Your task to perform on an android device: add a contact in the contacts app Image 0: 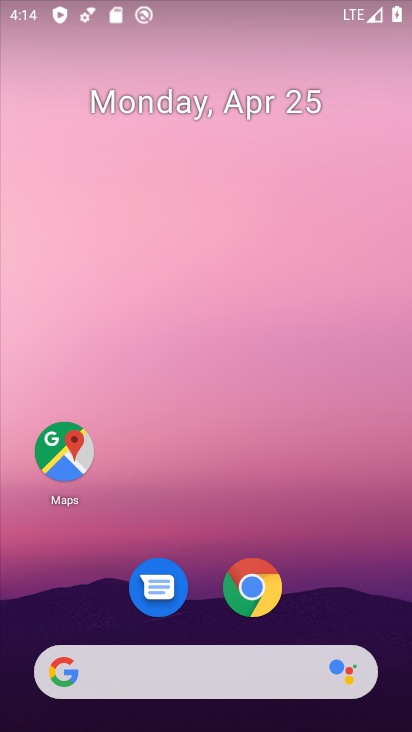
Step 0: drag from (336, 604) to (318, 17)
Your task to perform on an android device: add a contact in the contacts app Image 1: 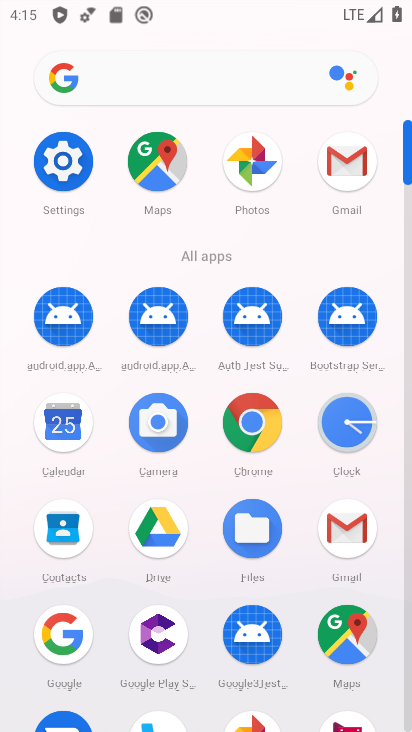
Step 1: click (54, 543)
Your task to perform on an android device: add a contact in the contacts app Image 2: 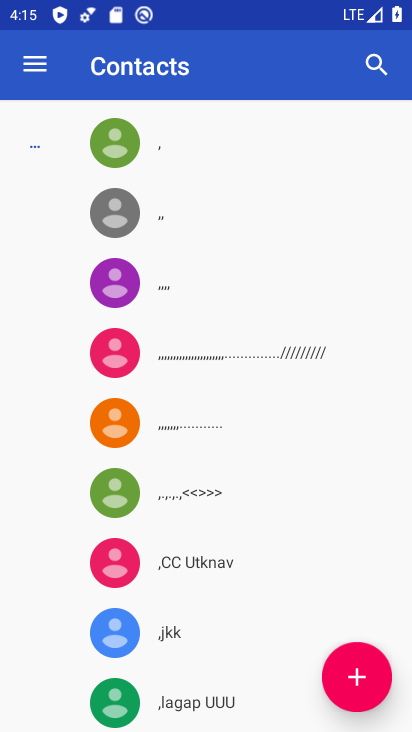
Step 2: click (350, 690)
Your task to perform on an android device: add a contact in the contacts app Image 3: 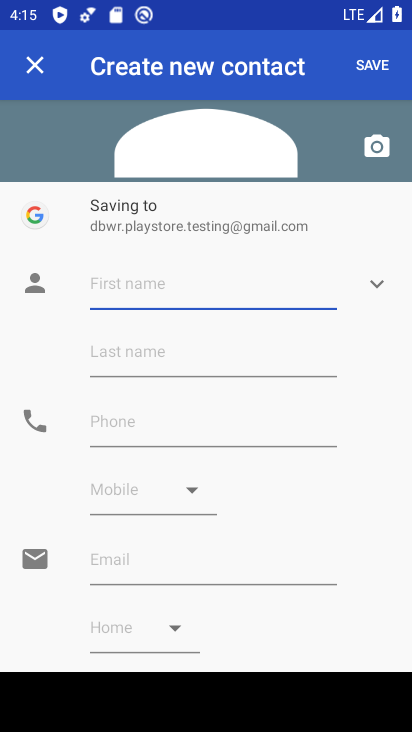
Step 3: click (154, 275)
Your task to perform on an android device: add a contact in the contacts app Image 4: 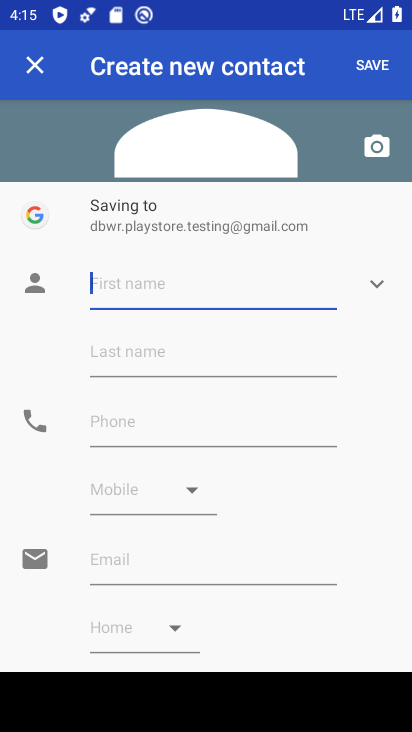
Step 4: type "bunny"
Your task to perform on an android device: add a contact in the contacts app Image 5: 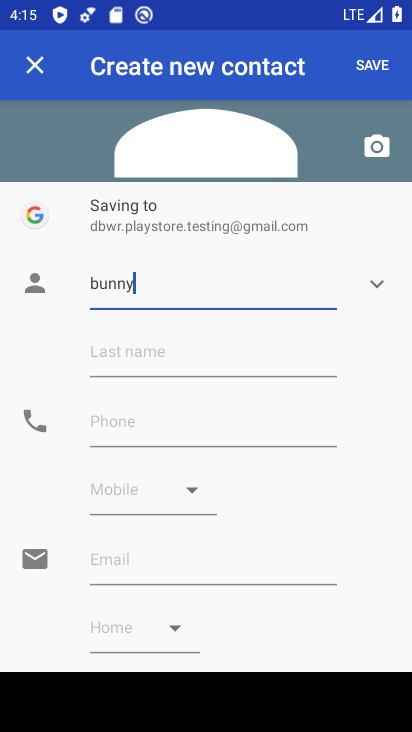
Step 5: click (279, 403)
Your task to perform on an android device: add a contact in the contacts app Image 6: 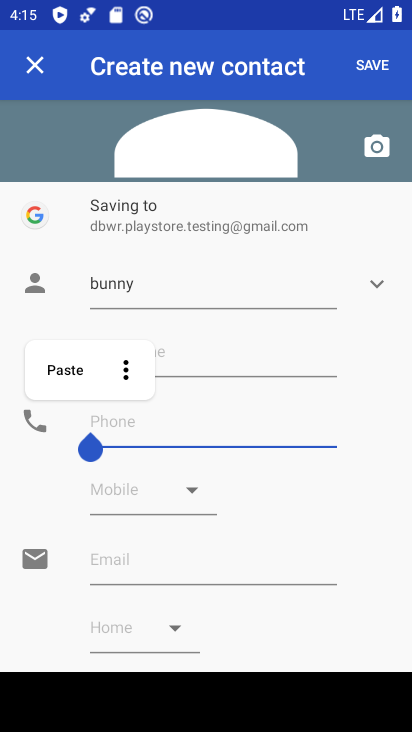
Step 6: type "6543212467"
Your task to perform on an android device: add a contact in the contacts app Image 7: 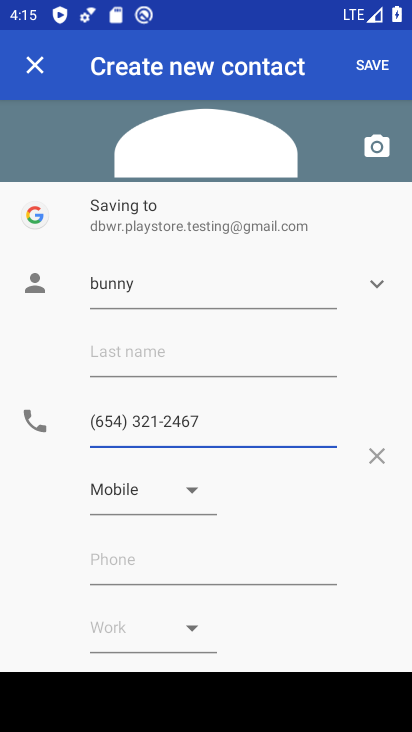
Step 7: click (374, 58)
Your task to perform on an android device: add a contact in the contacts app Image 8: 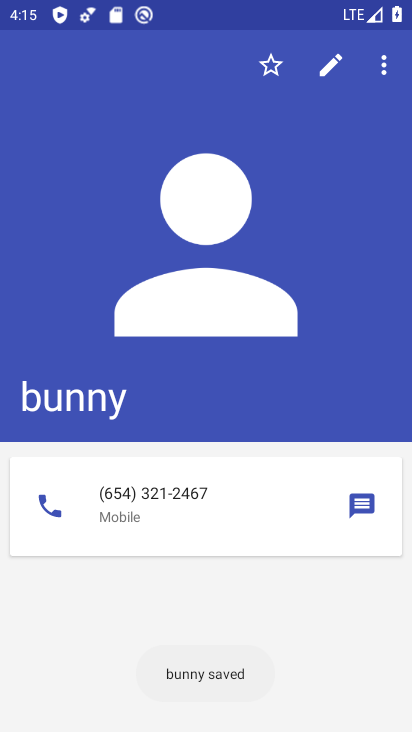
Step 8: task complete